Your task to perform on an android device: check google app version Image 0: 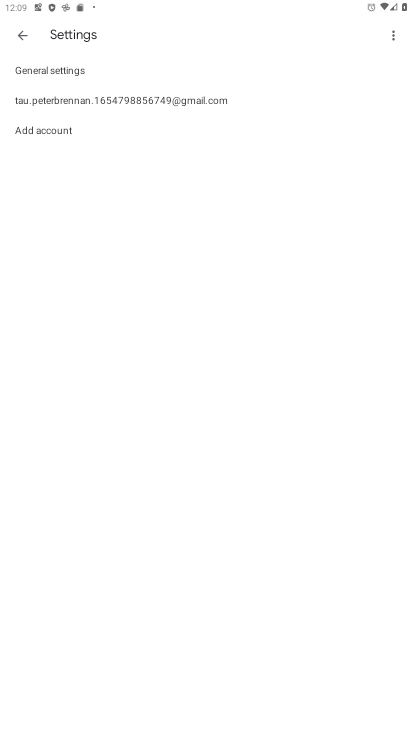
Step 0: press home button
Your task to perform on an android device: check google app version Image 1: 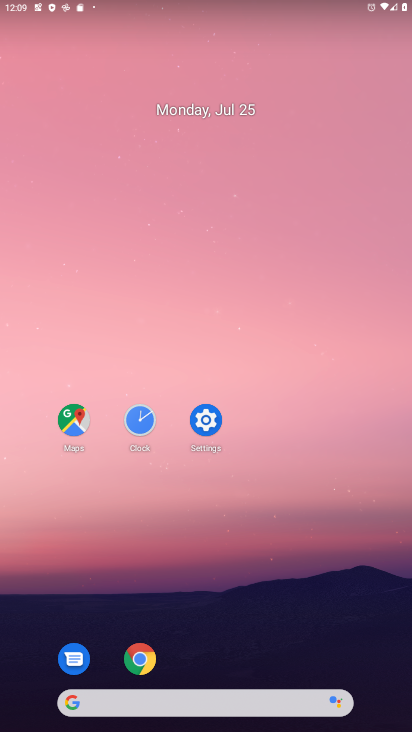
Step 1: drag from (408, 520) to (410, 47)
Your task to perform on an android device: check google app version Image 2: 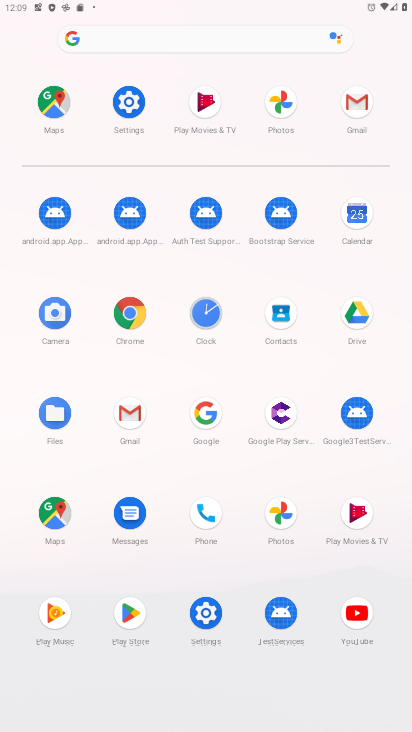
Step 2: click (199, 428)
Your task to perform on an android device: check google app version Image 3: 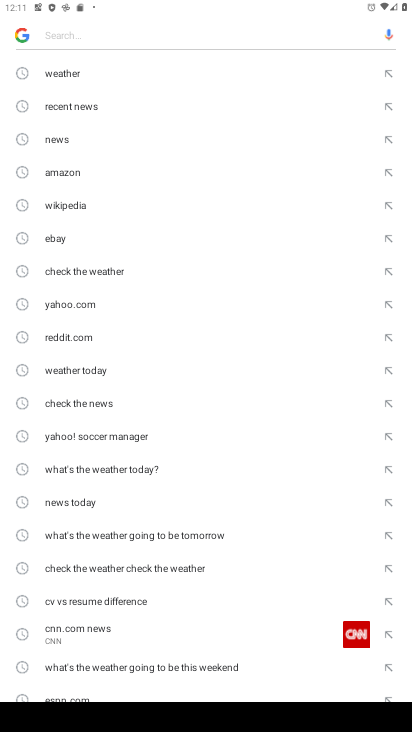
Step 3: press home button
Your task to perform on an android device: check google app version Image 4: 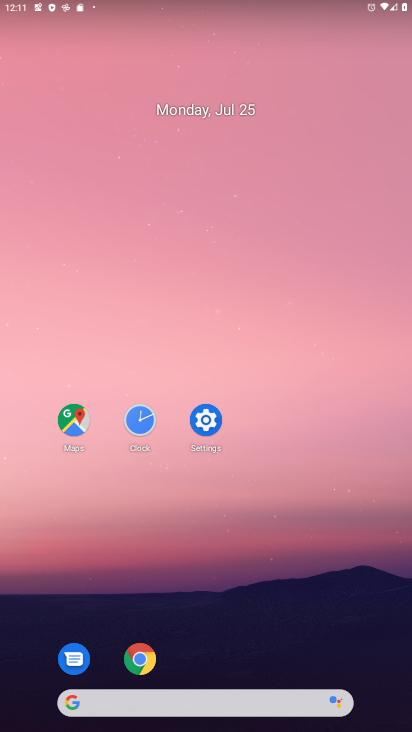
Step 4: drag from (387, 704) to (376, 105)
Your task to perform on an android device: check google app version Image 5: 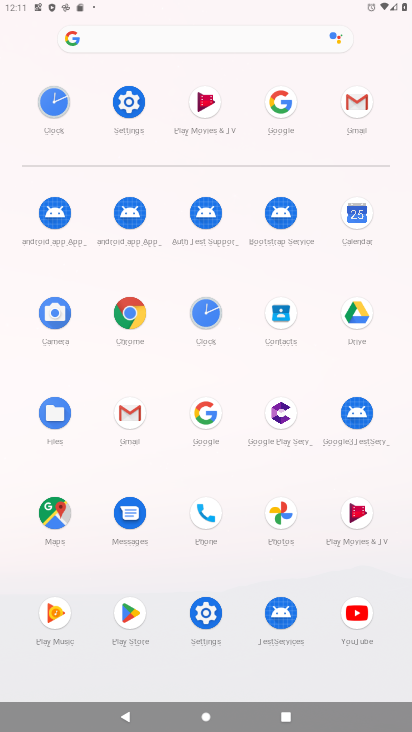
Step 5: click (204, 417)
Your task to perform on an android device: check google app version Image 6: 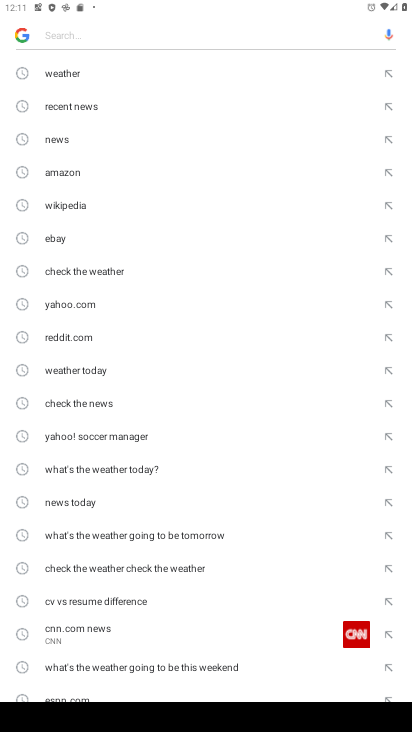
Step 6: task complete